Your task to perform on an android device: Search for duracell triple a on bestbuy.com, select the first entry, add it to the cart, then select checkout. Image 0: 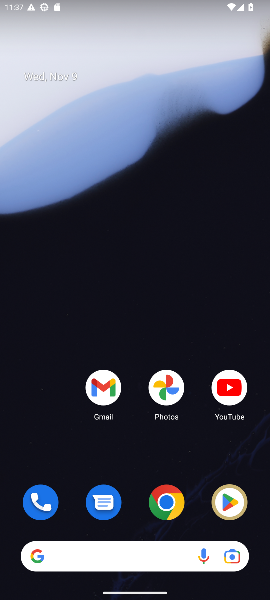
Step 0: drag from (133, 481) to (191, 75)
Your task to perform on an android device: Search for duracell triple a on bestbuy.com, select the first entry, add it to the cart, then select checkout. Image 1: 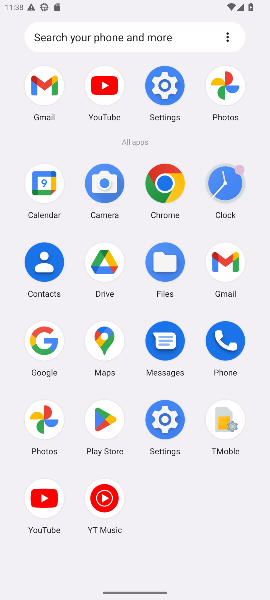
Step 1: click (161, 184)
Your task to perform on an android device: Search for duracell triple a on bestbuy.com, select the first entry, add it to the cart, then select checkout. Image 2: 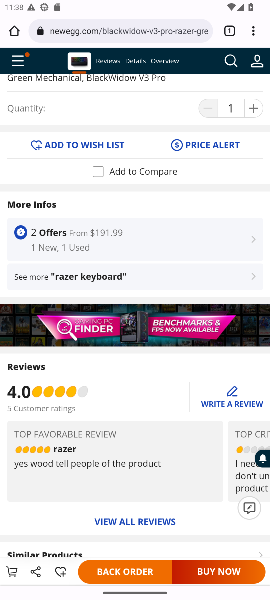
Step 2: click (122, 33)
Your task to perform on an android device: Search for duracell triple a on bestbuy.com, select the first entry, add it to the cart, then select checkout. Image 3: 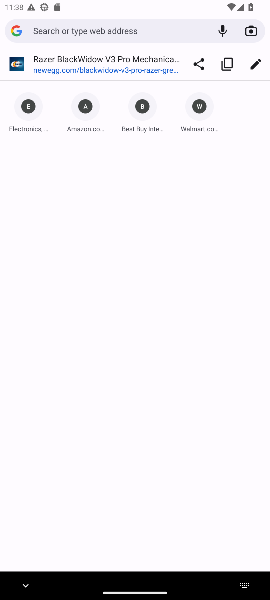
Step 3: type "bestbuy.com"
Your task to perform on an android device: Search for duracell triple a on bestbuy.com, select the first entry, add it to the cart, then select checkout. Image 4: 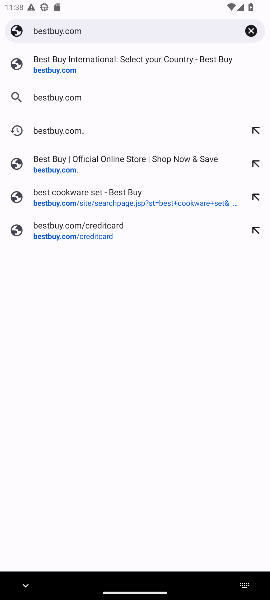
Step 4: press enter
Your task to perform on an android device: Search for duracell triple a on bestbuy.com, select the first entry, add it to the cart, then select checkout. Image 5: 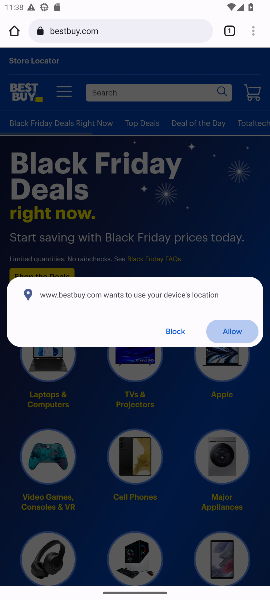
Step 5: click (168, 337)
Your task to perform on an android device: Search for duracell triple a on bestbuy.com, select the first entry, add it to the cart, then select checkout. Image 6: 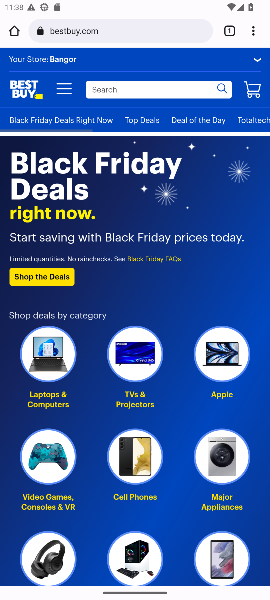
Step 6: click (142, 90)
Your task to perform on an android device: Search for duracell triple a on bestbuy.com, select the first entry, add it to the cart, then select checkout. Image 7: 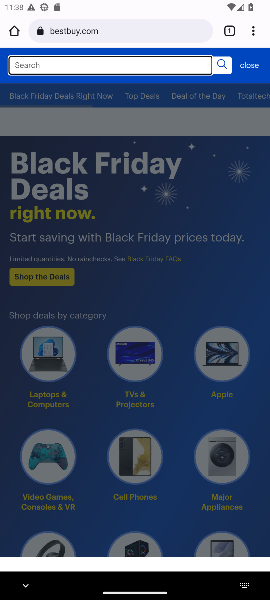
Step 7: type "duracell triple a"
Your task to perform on an android device: Search for duracell triple a on bestbuy.com, select the first entry, add it to the cart, then select checkout. Image 8: 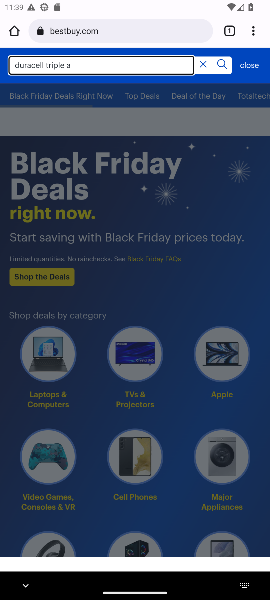
Step 8: press enter
Your task to perform on an android device: Search for duracell triple a on bestbuy.com, select the first entry, add it to the cart, then select checkout. Image 9: 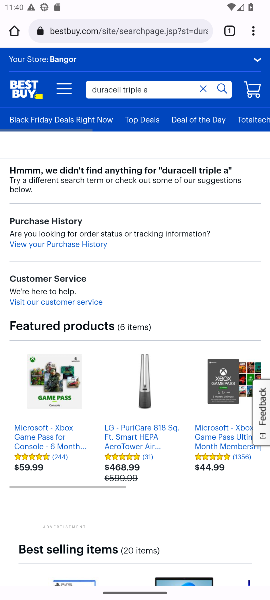
Step 9: drag from (153, 428) to (161, 100)
Your task to perform on an android device: Search for duracell triple a on bestbuy.com, select the first entry, add it to the cart, then select checkout. Image 10: 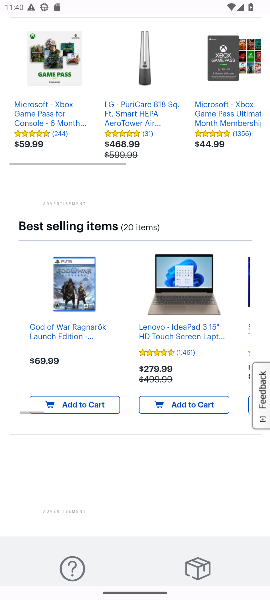
Step 10: drag from (141, 482) to (165, 93)
Your task to perform on an android device: Search for duracell triple a on bestbuy.com, select the first entry, add it to the cart, then select checkout. Image 11: 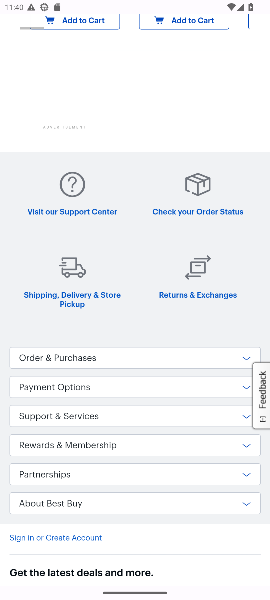
Step 11: drag from (178, 116) to (155, 469)
Your task to perform on an android device: Search for duracell triple a on bestbuy.com, select the first entry, add it to the cart, then select checkout. Image 12: 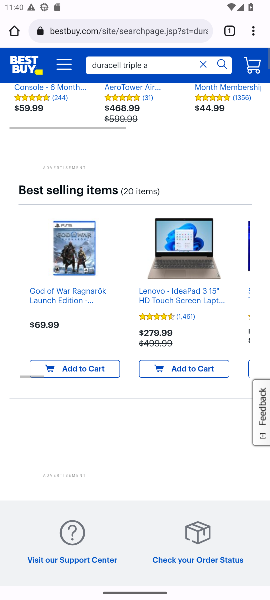
Step 12: drag from (190, 156) to (175, 487)
Your task to perform on an android device: Search for duracell triple a on bestbuy.com, select the first entry, add it to the cart, then select checkout. Image 13: 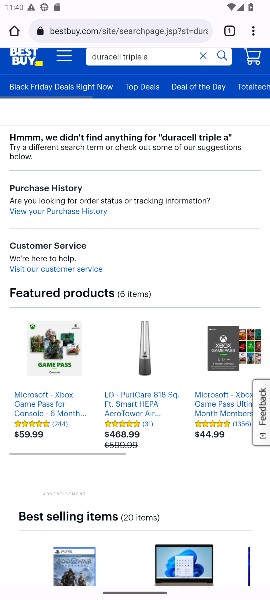
Step 13: drag from (174, 237) to (159, 438)
Your task to perform on an android device: Search for duracell triple a on bestbuy.com, select the first entry, add it to the cart, then select checkout. Image 14: 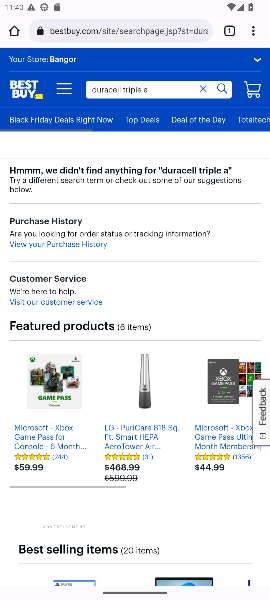
Step 14: click (204, 90)
Your task to perform on an android device: Search for duracell triple a on bestbuy.com, select the first entry, add it to the cart, then select checkout. Image 15: 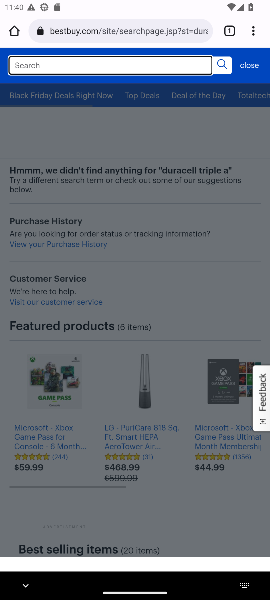
Step 15: type "duracell triple a"
Your task to perform on an android device: Search for duracell triple a on bestbuy.com, select the first entry, add it to the cart, then select checkout. Image 16: 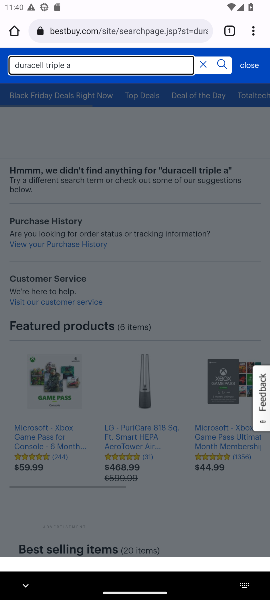
Step 16: press enter
Your task to perform on an android device: Search for duracell triple a on bestbuy.com, select the first entry, add it to the cart, then select checkout. Image 17: 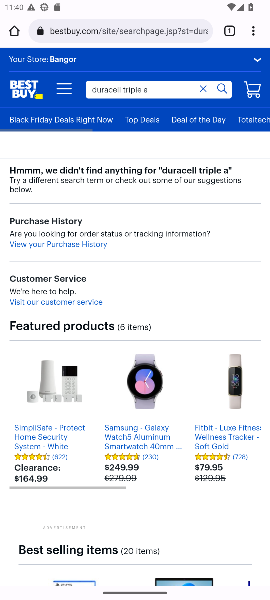
Step 17: task complete